Your task to perform on an android device: Search for "apple airpods pro" on bestbuy, select the first entry, and add it to the cart. Image 0: 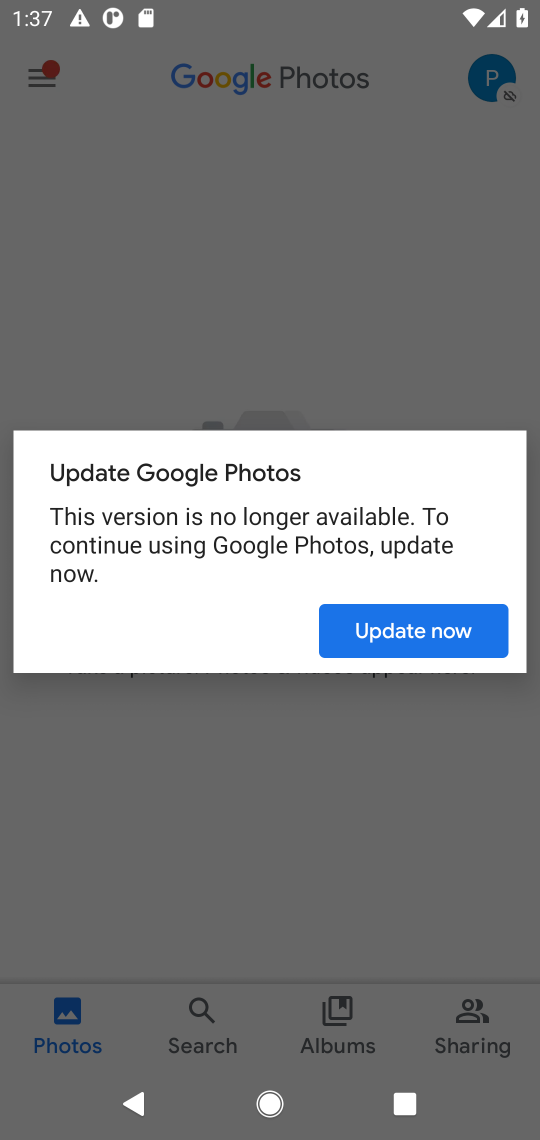
Step 0: press home button
Your task to perform on an android device: Search for "apple airpods pro" on bestbuy, select the first entry, and add it to the cart. Image 1: 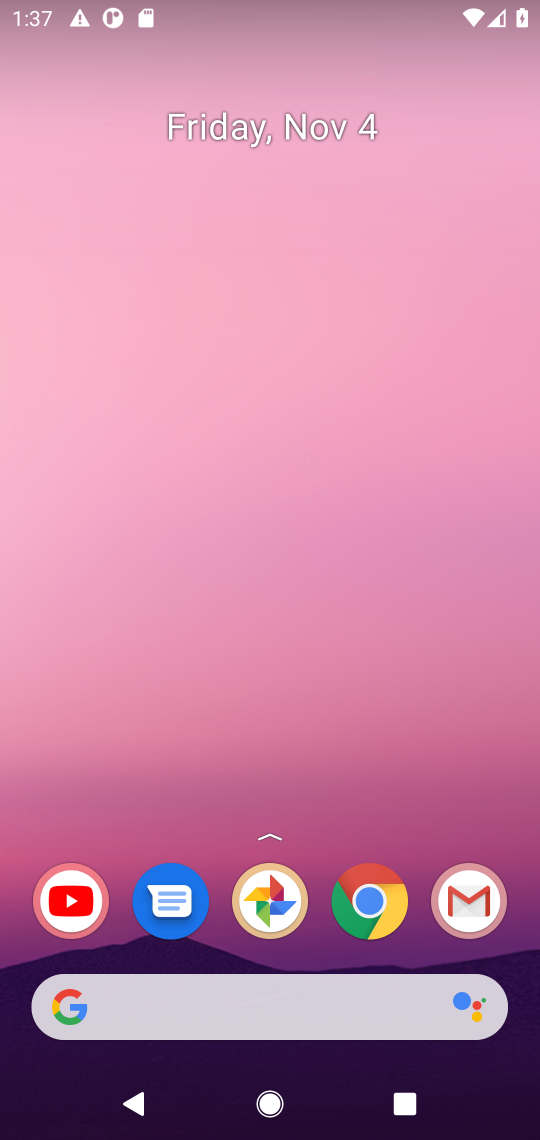
Step 1: click (346, 891)
Your task to perform on an android device: Search for "apple airpods pro" on bestbuy, select the first entry, and add it to the cart. Image 2: 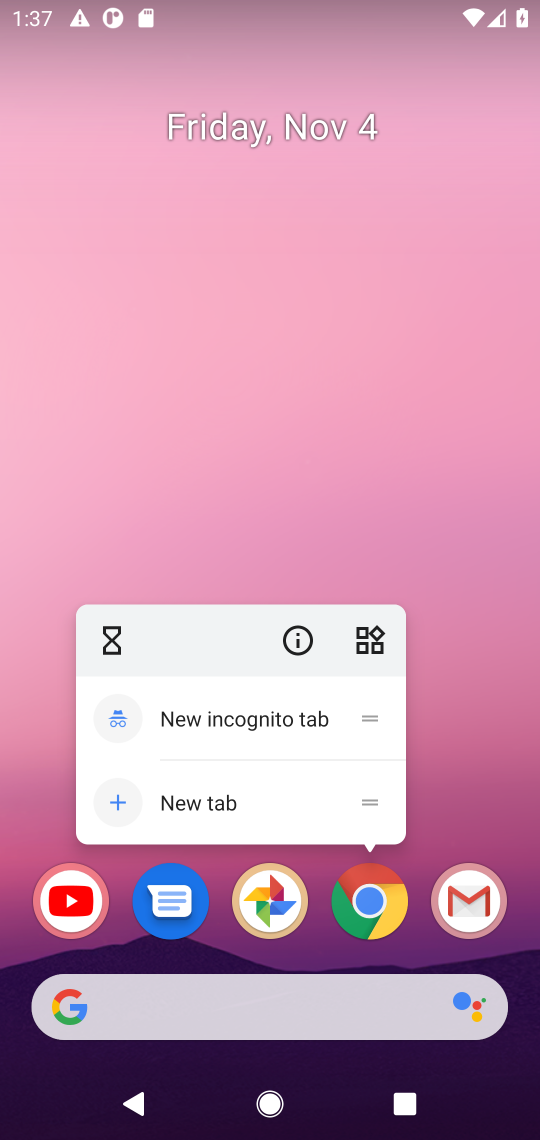
Step 2: click (356, 891)
Your task to perform on an android device: Search for "apple airpods pro" on bestbuy, select the first entry, and add it to the cart. Image 3: 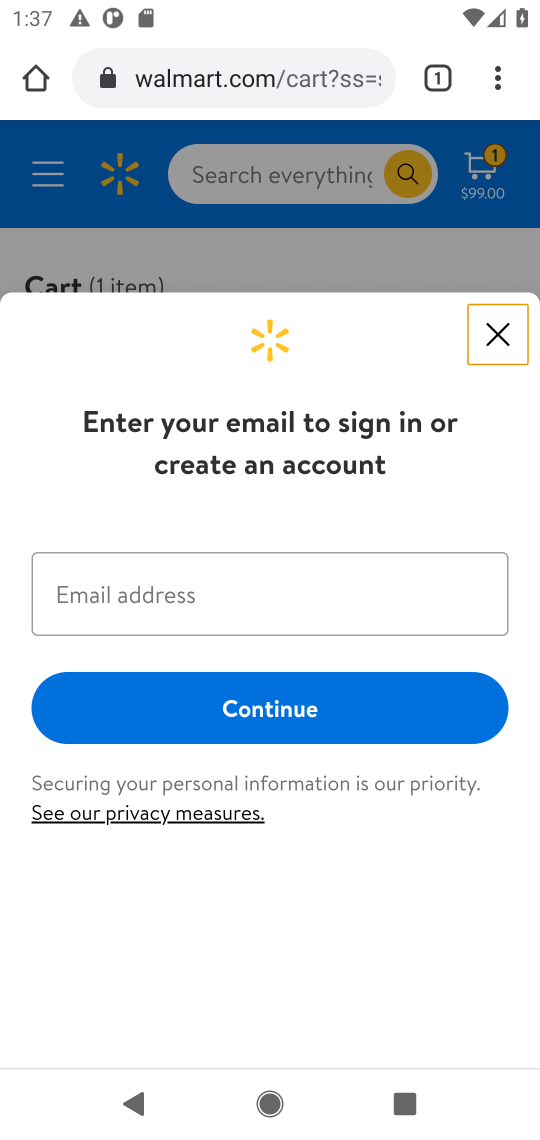
Step 3: click (503, 344)
Your task to perform on an android device: Search for "apple airpods pro" on bestbuy, select the first entry, and add it to the cart. Image 4: 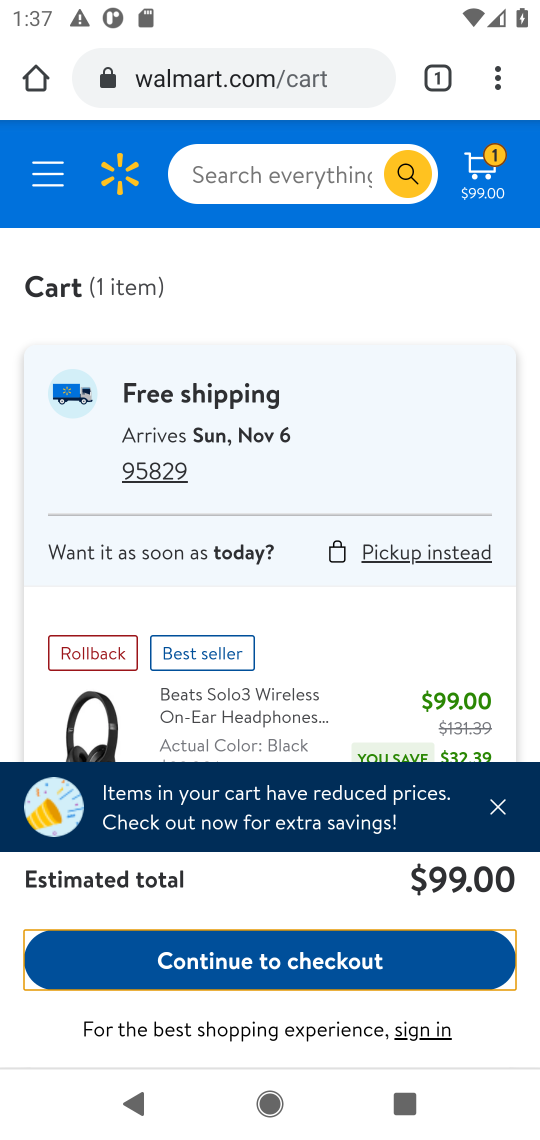
Step 4: click (339, 78)
Your task to perform on an android device: Search for "apple airpods pro" on bestbuy, select the first entry, and add it to the cart. Image 5: 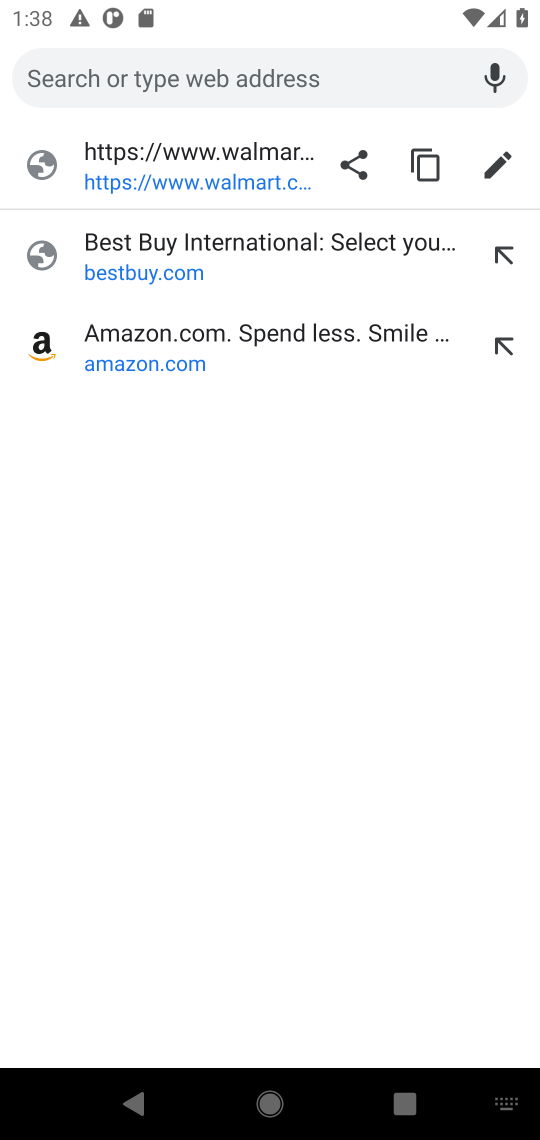
Step 5: type "bestbuy"
Your task to perform on an android device: Search for "apple airpods pro" on bestbuy, select the first entry, and add it to the cart. Image 6: 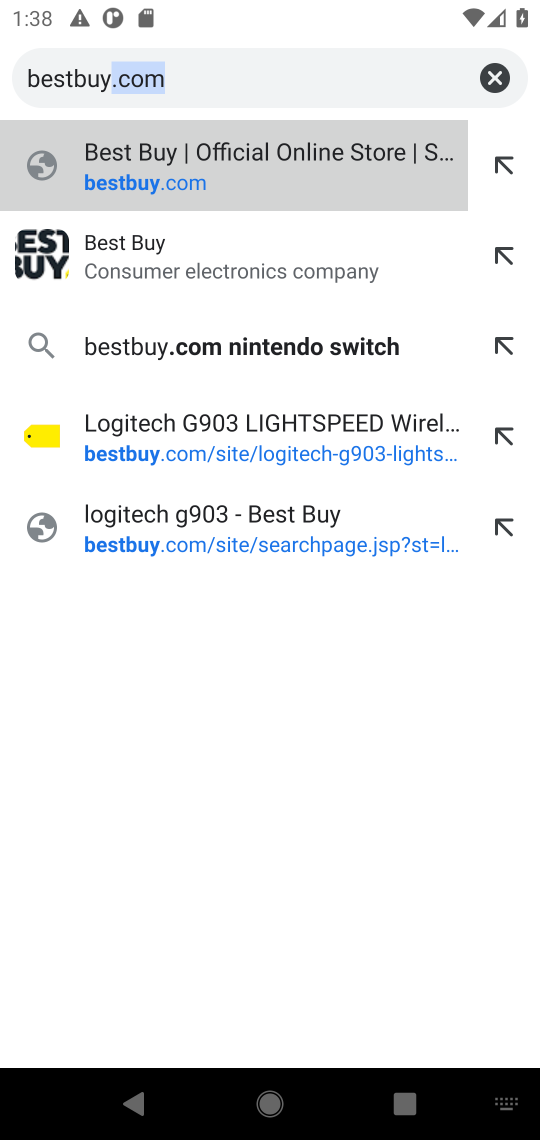
Step 6: press enter
Your task to perform on an android device: Search for "apple airpods pro" on bestbuy, select the first entry, and add it to the cart. Image 7: 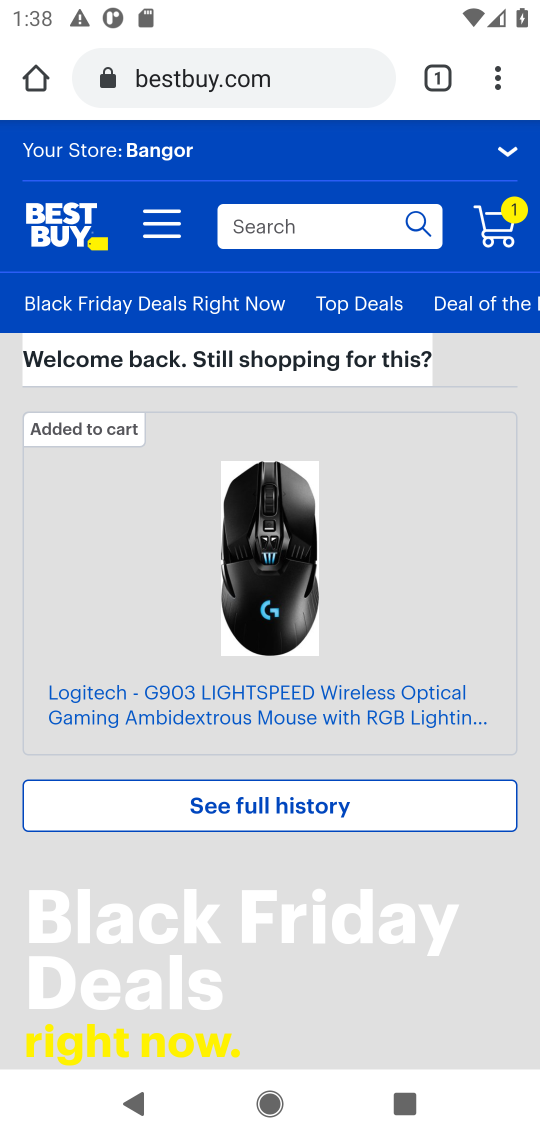
Step 7: click (310, 209)
Your task to perform on an android device: Search for "apple airpods pro" on bestbuy, select the first entry, and add it to the cart. Image 8: 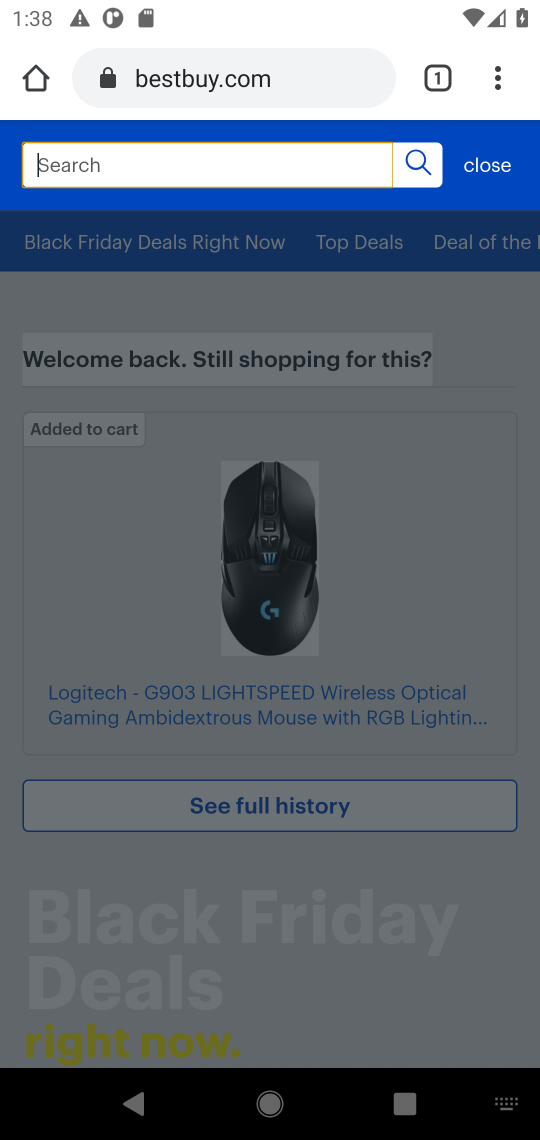
Step 8: type "apple airpods pro"
Your task to perform on an android device: Search for "apple airpods pro" on bestbuy, select the first entry, and add it to the cart. Image 9: 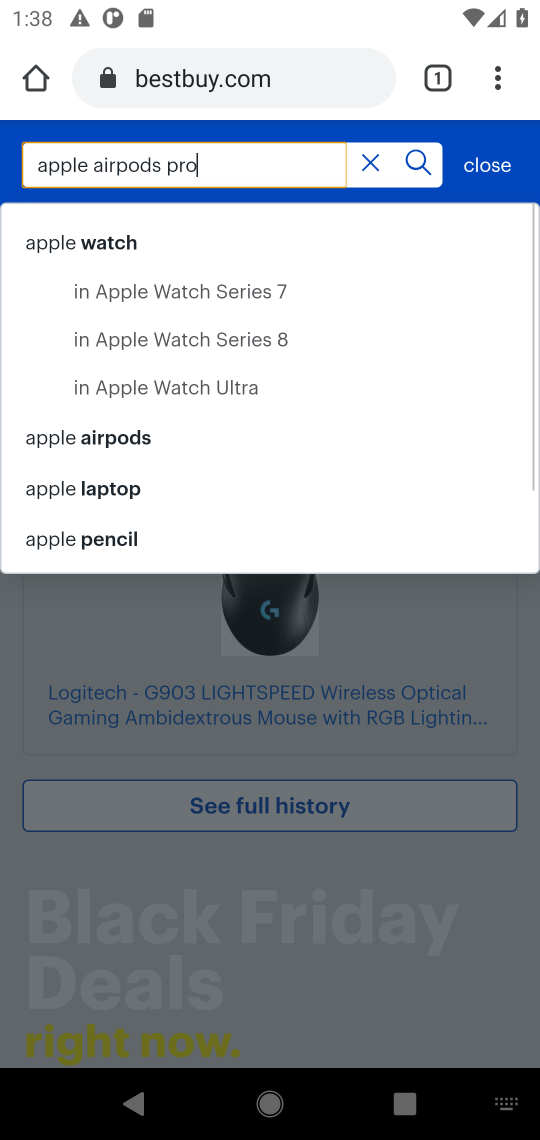
Step 9: press enter
Your task to perform on an android device: Search for "apple airpods pro" on bestbuy, select the first entry, and add it to the cart. Image 10: 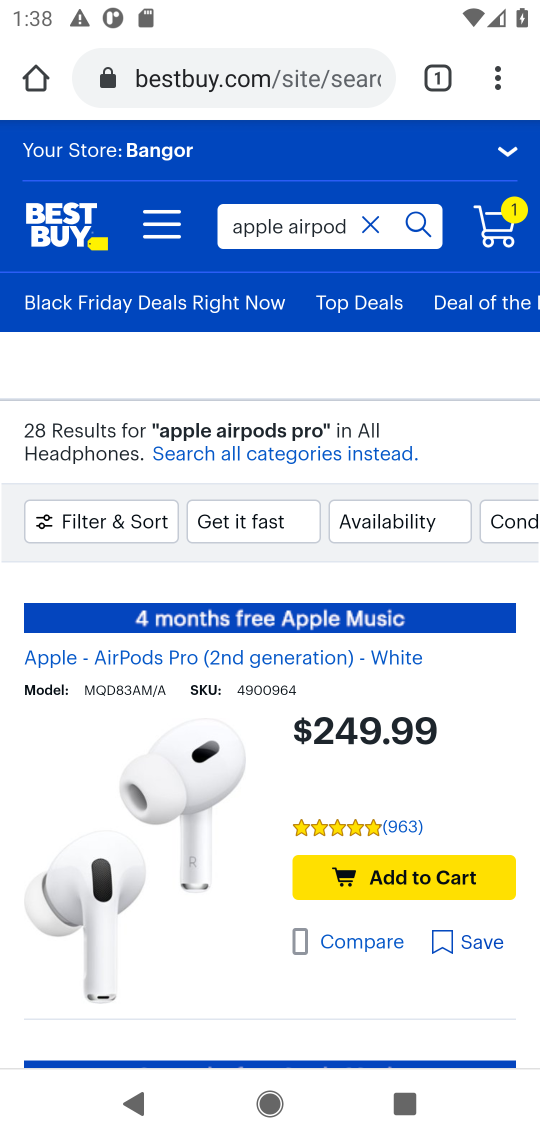
Step 10: click (164, 809)
Your task to perform on an android device: Search for "apple airpods pro" on bestbuy, select the first entry, and add it to the cart. Image 11: 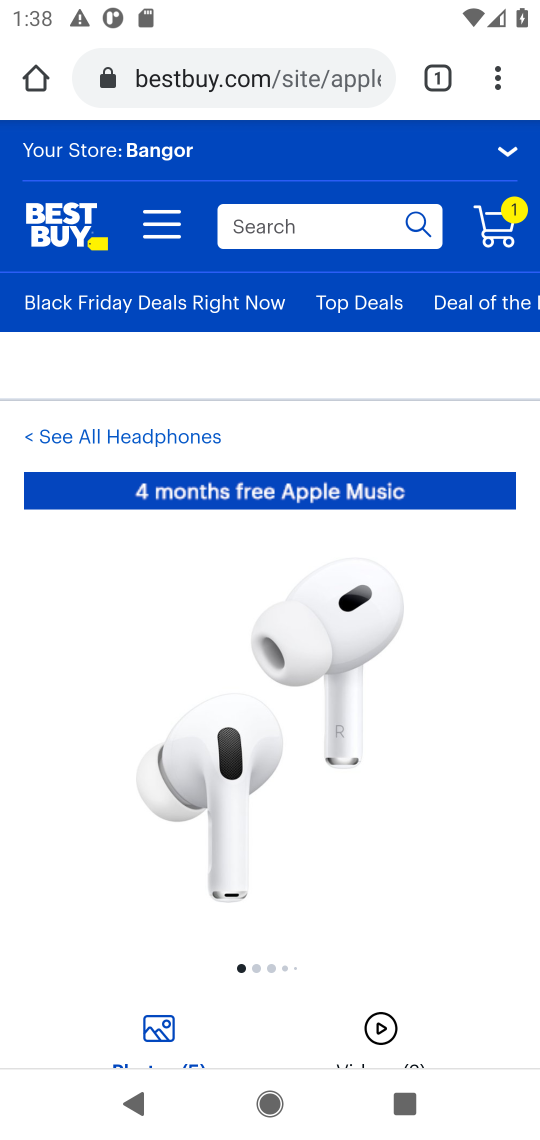
Step 11: drag from (391, 841) to (426, 316)
Your task to perform on an android device: Search for "apple airpods pro" on bestbuy, select the first entry, and add it to the cart. Image 12: 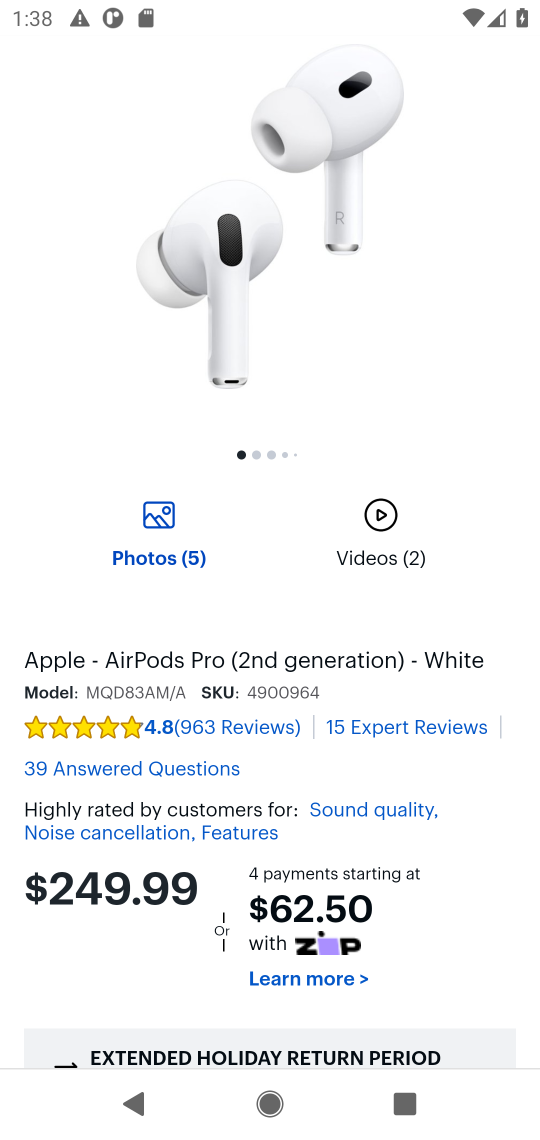
Step 12: drag from (372, 467) to (370, 361)
Your task to perform on an android device: Search for "apple airpods pro" on bestbuy, select the first entry, and add it to the cart. Image 13: 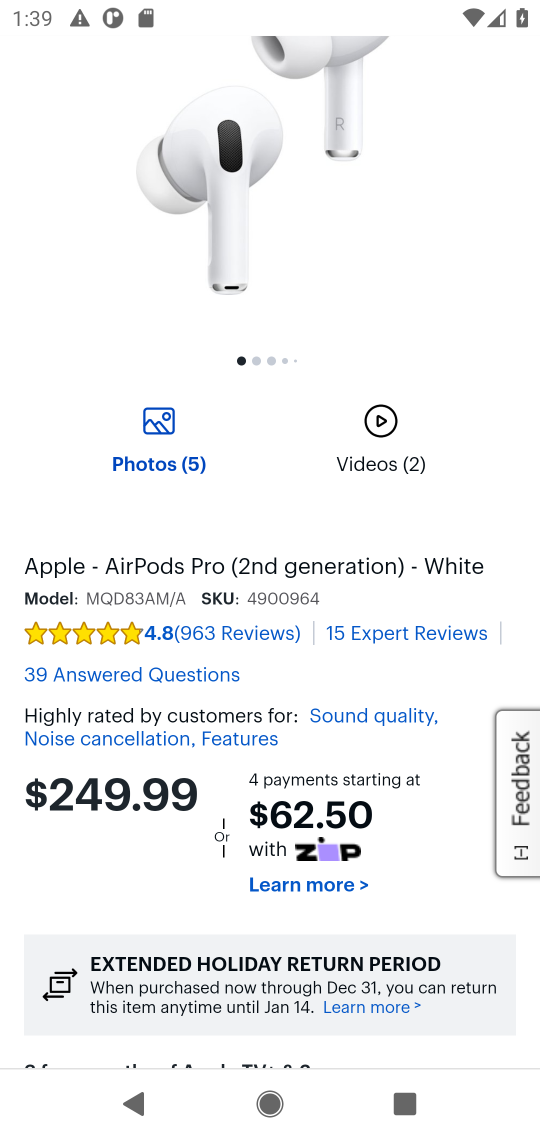
Step 13: drag from (413, 834) to (440, 439)
Your task to perform on an android device: Search for "apple airpods pro" on bestbuy, select the first entry, and add it to the cart. Image 14: 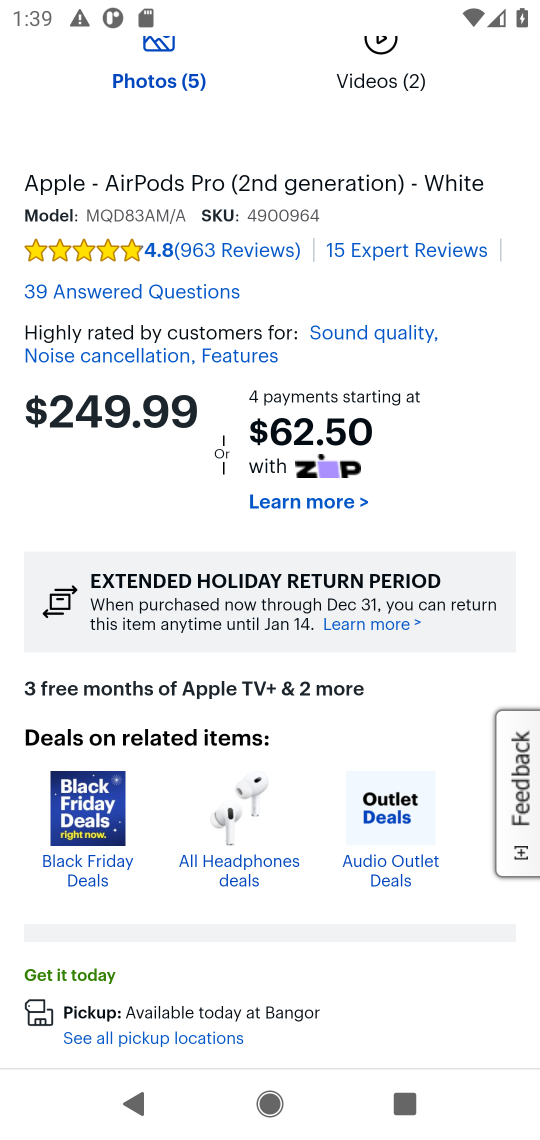
Step 14: drag from (391, 950) to (387, 452)
Your task to perform on an android device: Search for "apple airpods pro" on bestbuy, select the first entry, and add it to the cart. Image 15: 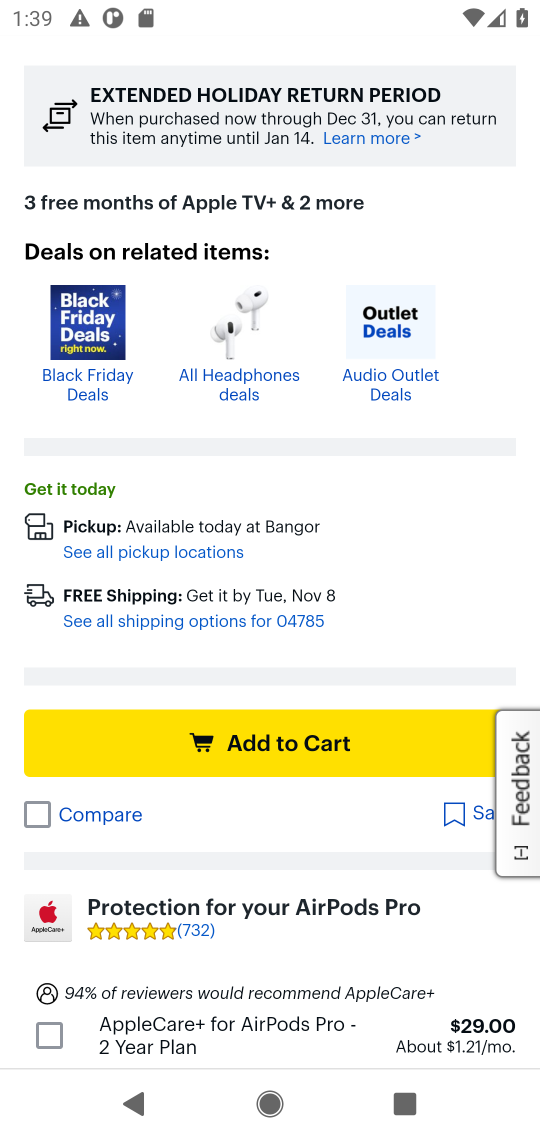
Step 15: click (306, 743)
Your task to perform on an android device: Search for "apple airpods pro" on bestbuy, select the first entry, and add it to the cart. Image 16: 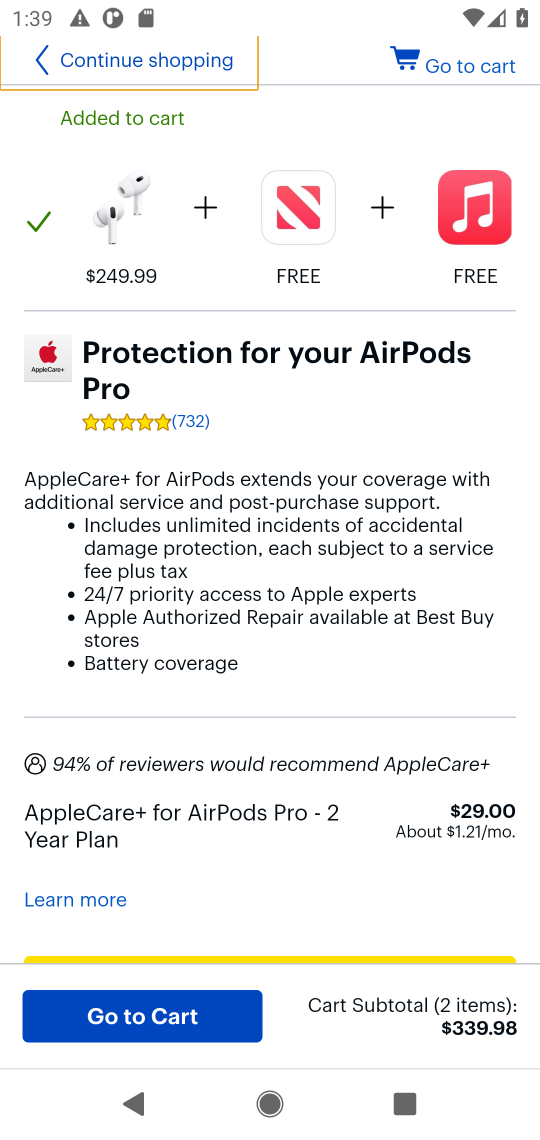
Step 16: task complete